Your task to perform on an android device: find snoozed emails in the gmail app Image 0: 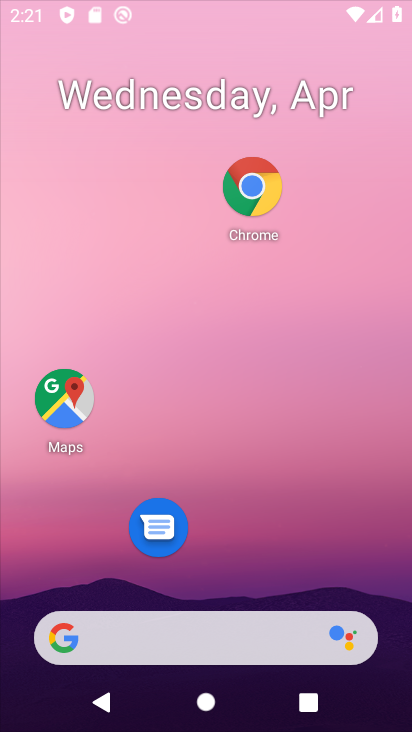
Step 0: drag from (254, 691) to (205, 262)
Your task to perform on an android device: find snoozed emails in the gmail app Image 1: 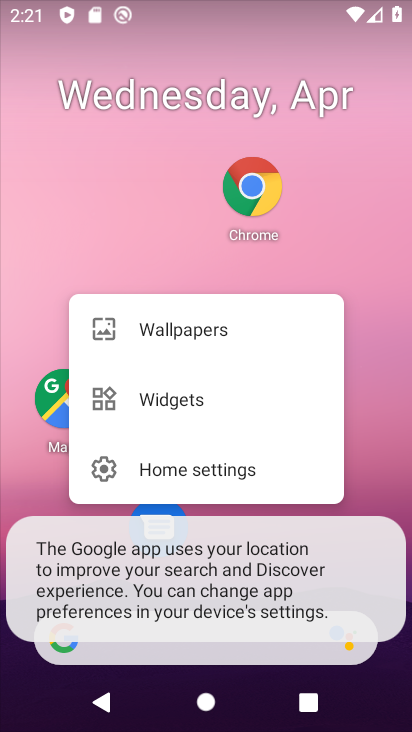
Step 1: click (60, 207)
Your task to perform on an android device: find snoozed emails in the gmail app Image 2: 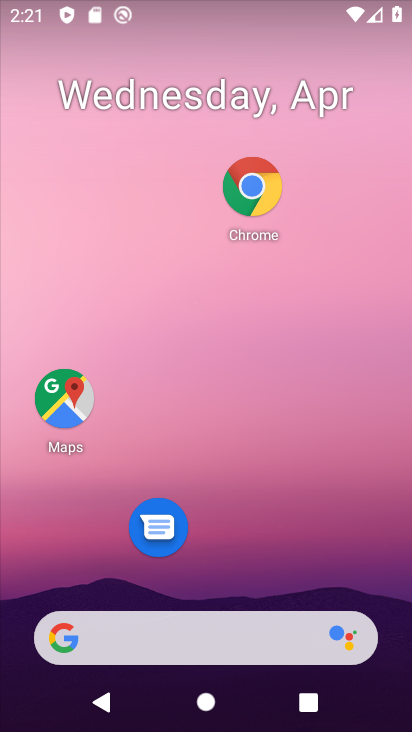
Step 2: click (60, 207)
Your task to perform on an android device: find snoozed emails in the gmail app Image 3: 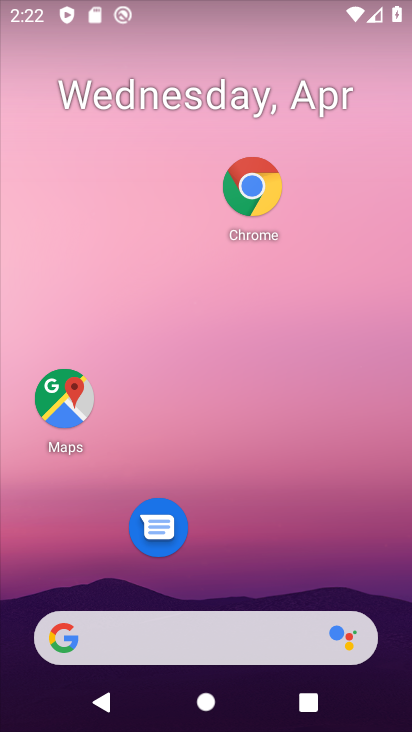
Step 3: drag from (256, 662) to (143, 200)
Your task to perform on an android device: find snoozed emails in the gmail app Image 4: 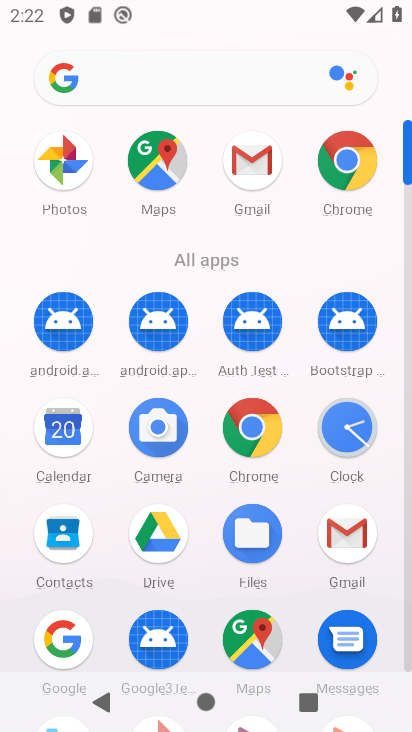
Step 4: click (241, 162)
Your task to perform on an android device: find snoozed emails in the gmail app Image 5: 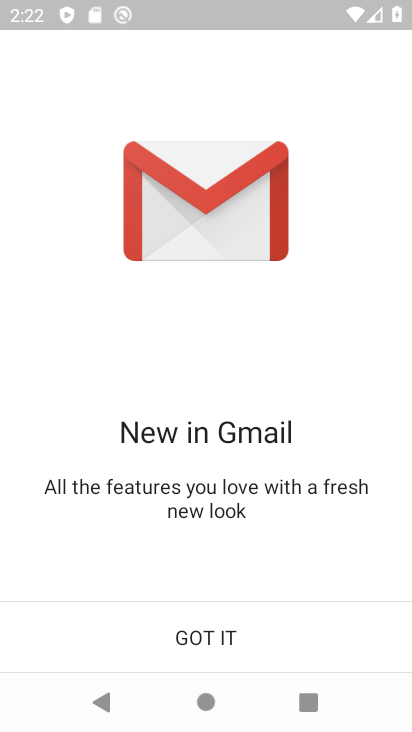
Step 5: click (250, 625)
Your task to perform on an android device: find snoozed emails in the gmail app Image 6: 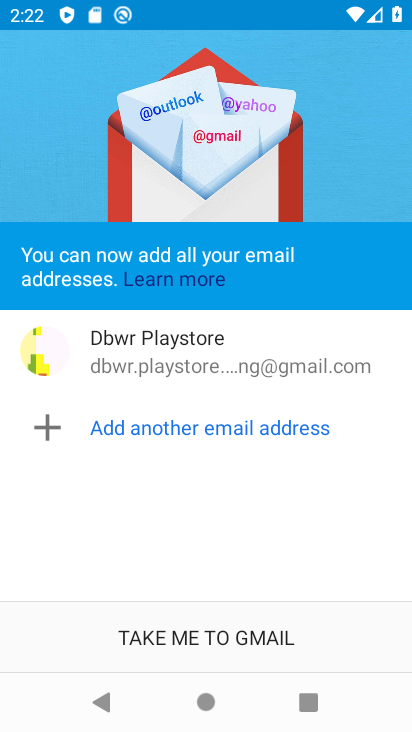
Step 6: click (218, 631)
Your task to perform on an android device: find snoozed emails in the gmail app Image 7: 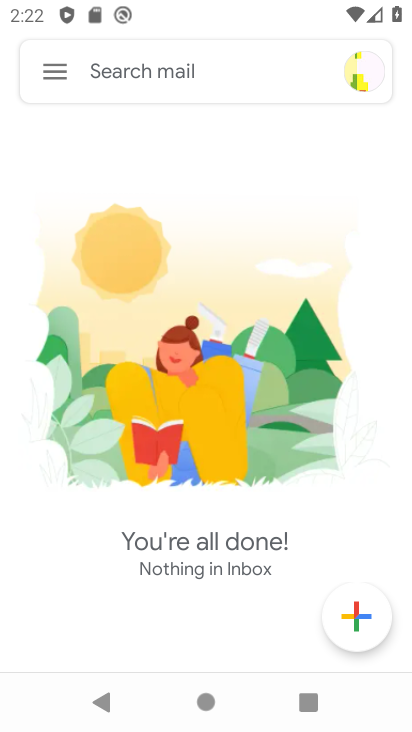
Step 7: click (184, 617)
Your task to perform on an android device: find snoozed emails in the gmail app Image 8: 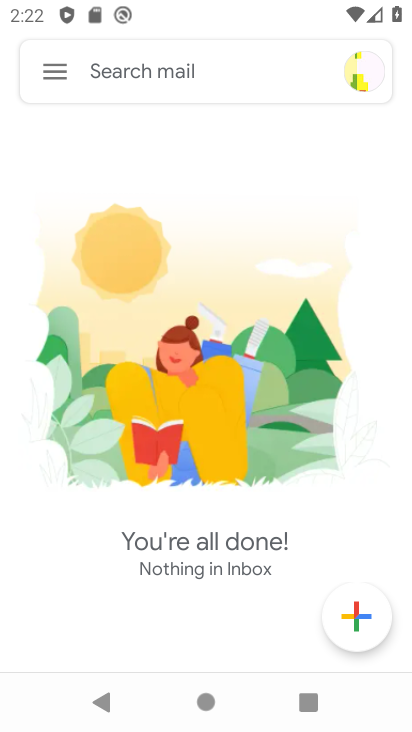
Step 8: click (56, 78)
Your task to perform on an android device: find snoozed emails in the gmail app Image 9: 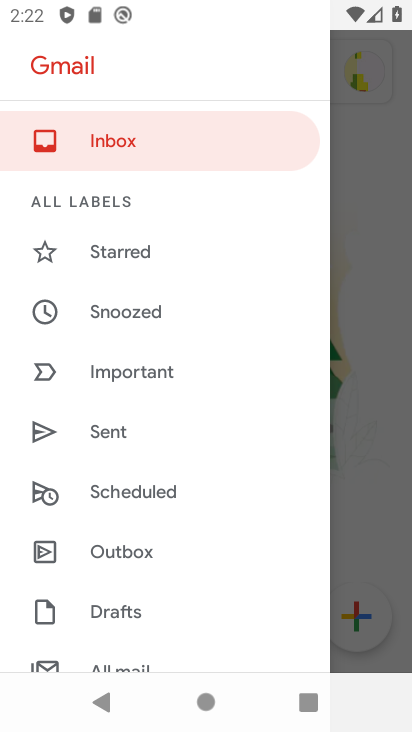
Step 9: drag from (273, 538) to (180, 229)
Your task to perform on an android device: find snoozed emails in the gmail app Image 10: 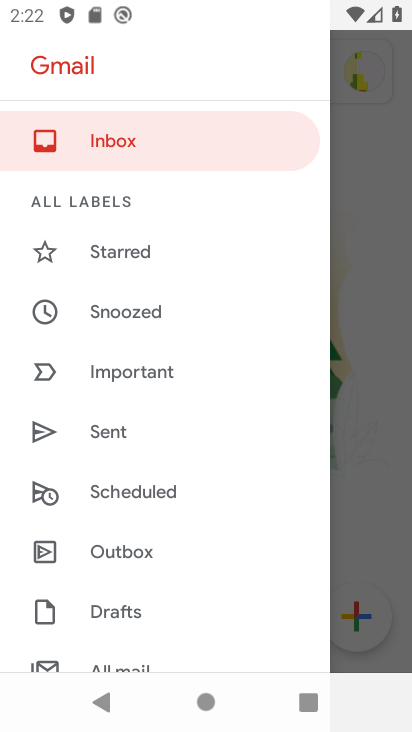
Step 10: drag from (115, 298) to (110, 261)
Your task to perform on an android device: find snoozed emails in the gmail app Image 11: 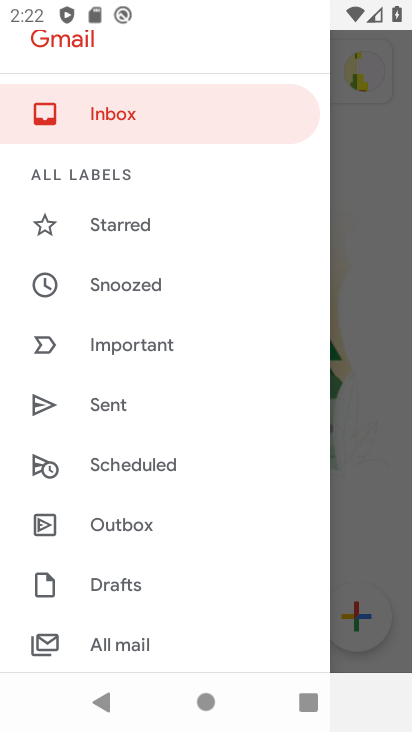
Step 11: drag from (177, 426) to (174, 369)
Your task to perform on an android device: find snoozed emails in the gmail app Image 12: 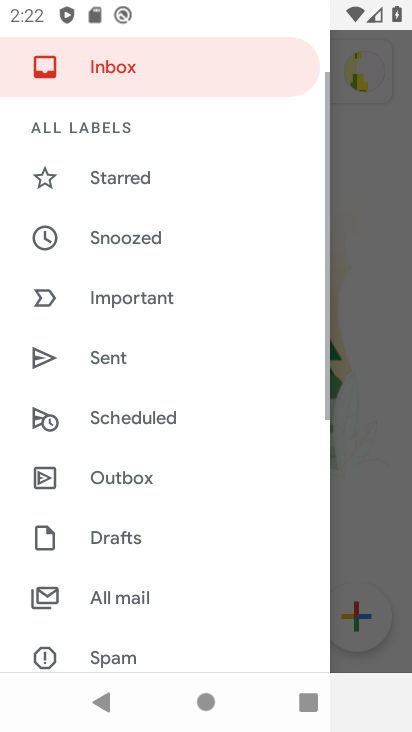
Step 12: click (174, 370)
Your task to perform on an android device: find snoozed emails in the gmail app Image 13: 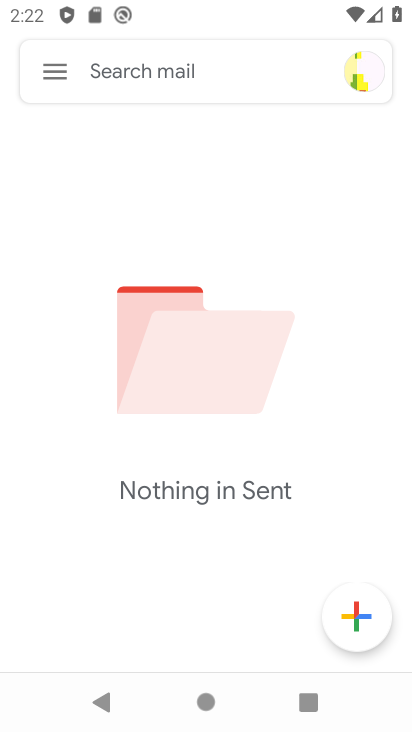
Step 13: task complete